Your task to perform on an android device: toggle notifications settings in the gmail app Image 0: 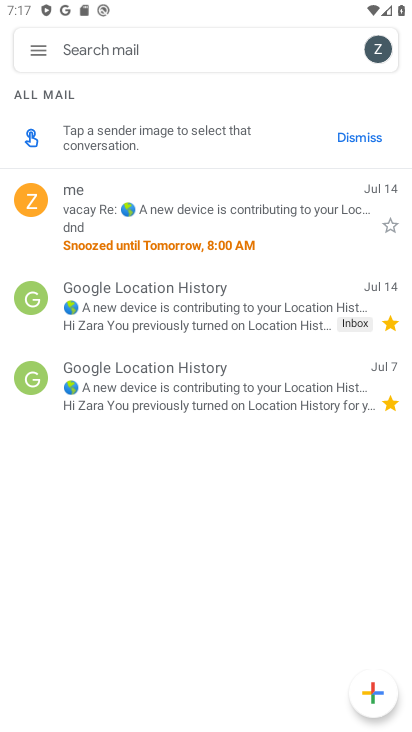
Step 0: press home button
Your task to perform on an android device: toggle notifications settings in the gmail app Image 1: 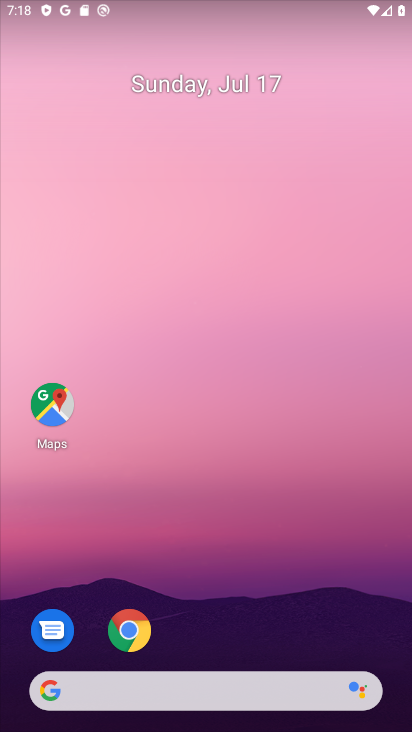
Step 1: drag from (196, 431) to (178, 20)
Your task to perform on an android device: toggle notifications settings in the gmail app Image 2: 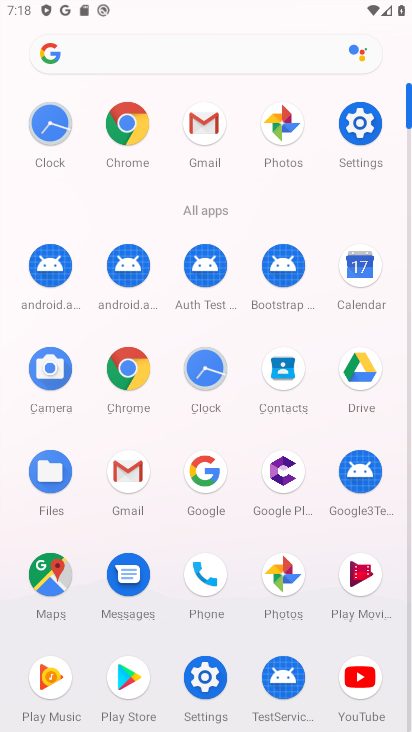
Step 2: click (202, 121)
Your task to perform on an android device: toggle notifications settings in the gmail app Image 3: 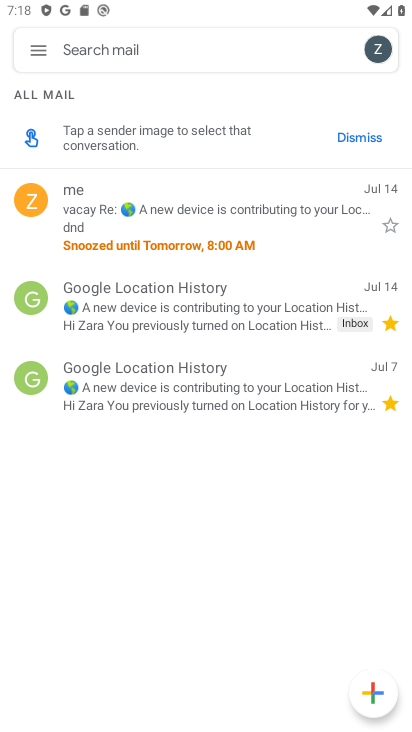
Step 3: click (39, 50)
Your task to perform on an android device: toggle notifications settings in the gmail app Image 4: 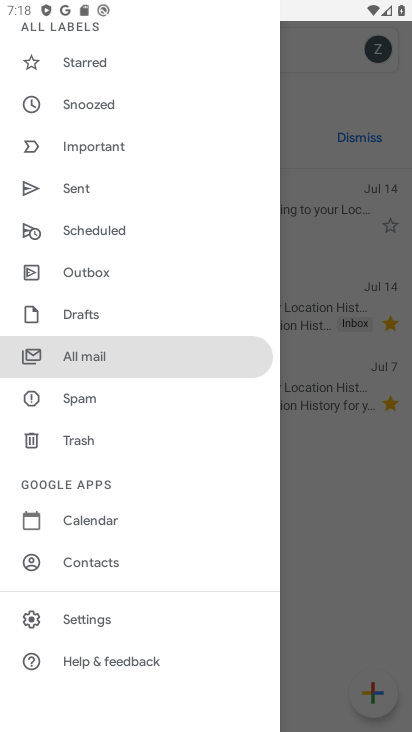
Step 4: click (89, 617)
Your task to perform on an android device: toggle notifications settings in the gmail app Image 5: 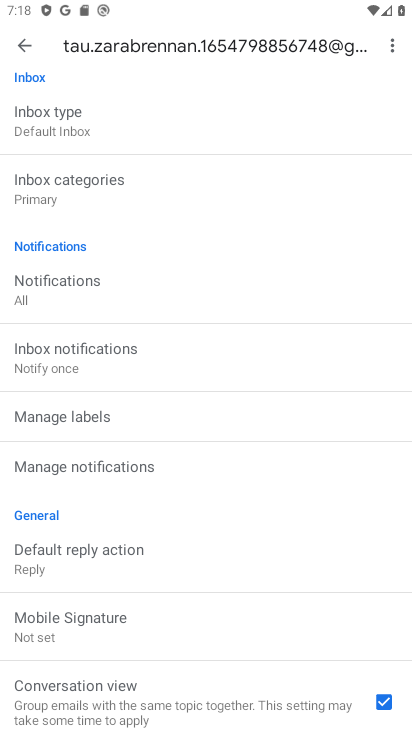
Step 5: click (36, 285)
Your task to perform on an android device: toggle notifications settings in the gmail app Image 6: 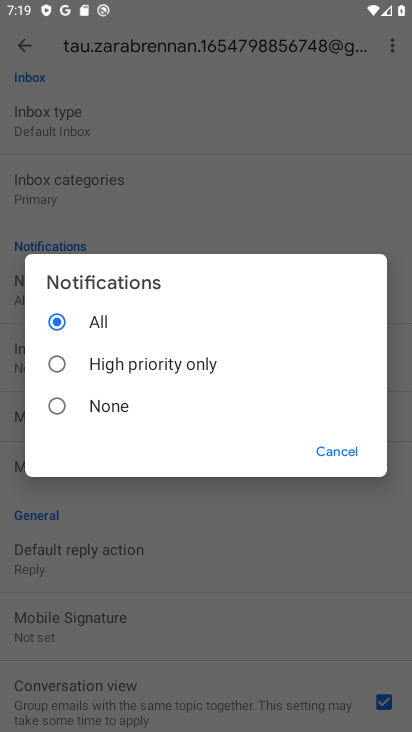
Step 6: click (58, 410)
Your task to perform on an android device: toggle notifications settings in the gmail app Image 7: 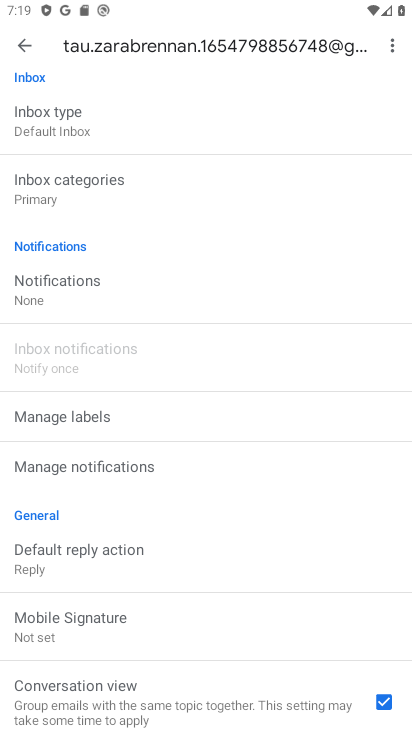
Step 7: task complete